Your task to perform on an android device: What is the recent news? Image 0: 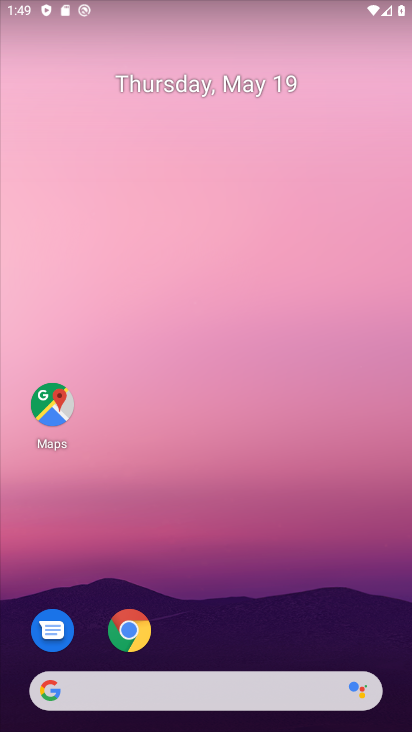
Step 0: drag from (206, 546) to (169, 6)
Your task to perform on an android device: What is the recent news? Image 1: 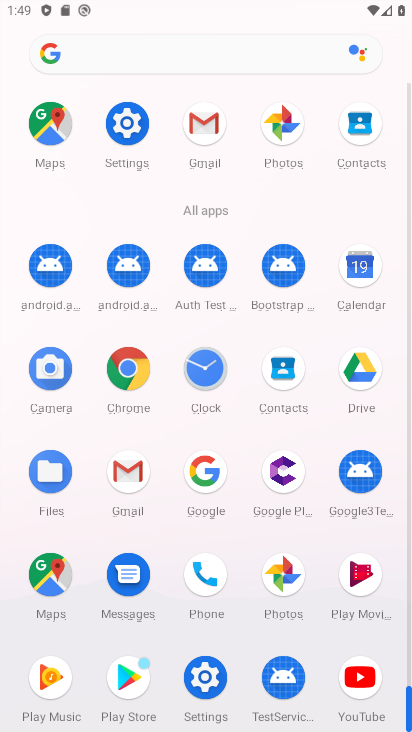
Step 1: drag from (8, 553) to (32, 198)
Your task to perform on an android device: What is the recent news? Image 2: 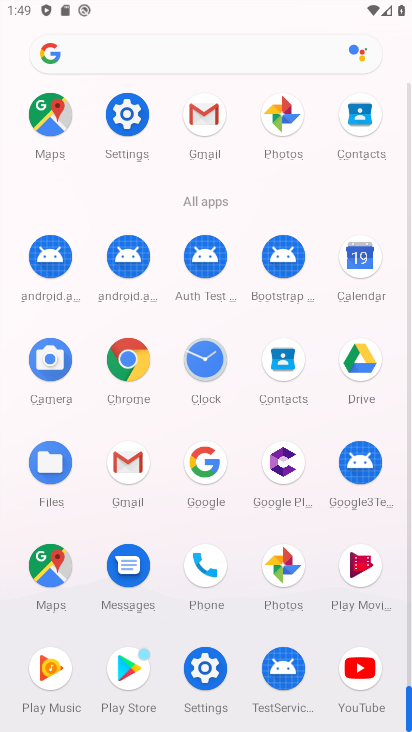
Step 2: click (125, 358)
Your task to perform on an android device: What is the recent news? Image 3: 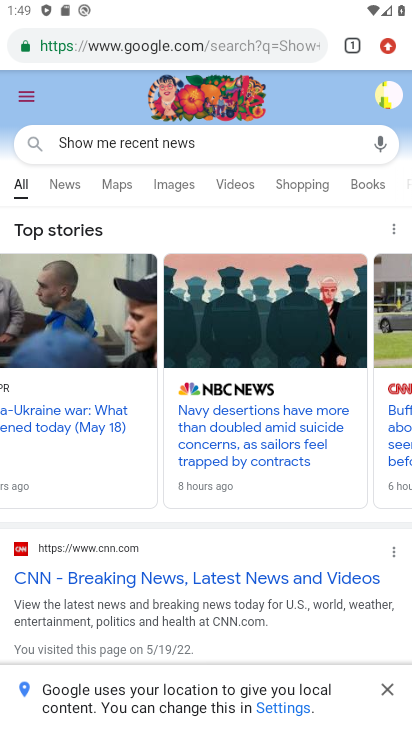
Step 3: task complete